Your task to perform on an android device: Open Google Chrome and click the shortcut for Amazon.com Image 0: 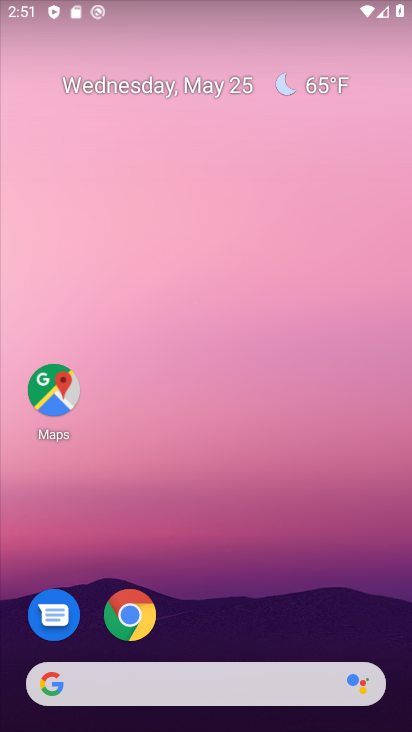
Step 0: click (142, 613)
Your task to perform on an android device: Open Google Chrome and click the shortcut for Amazon.com Image 1: 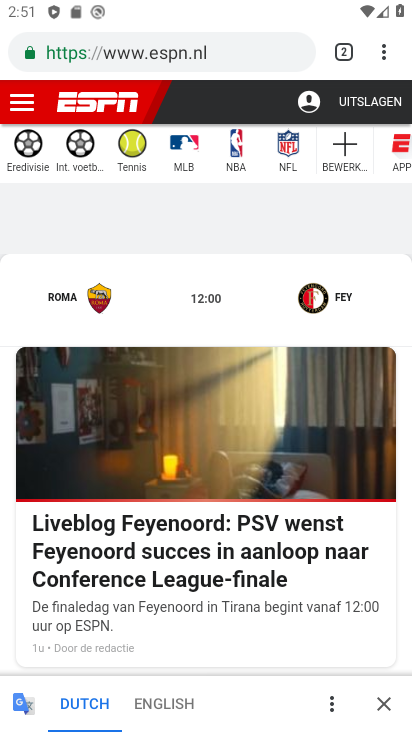
Step 1: click (339, 51)
Your task to perform on an android device: Open Google Chrome and click the shortcut for Amazon.com Image 2: 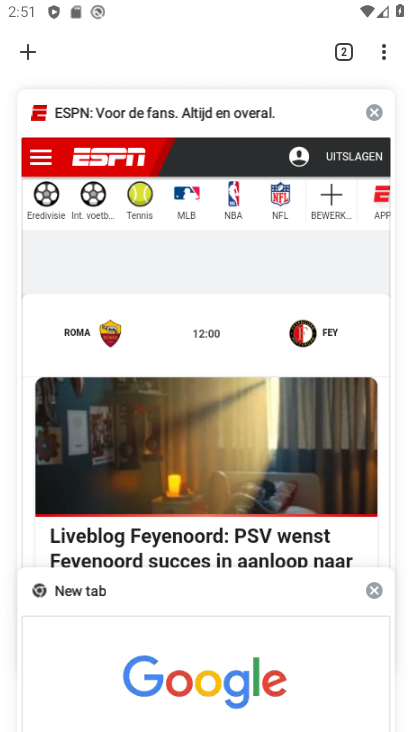
Step 2: click (368, 115)
Your task to perform on an android device: Open Google Chrome and click the shortcut for Amazon.com Image 3: 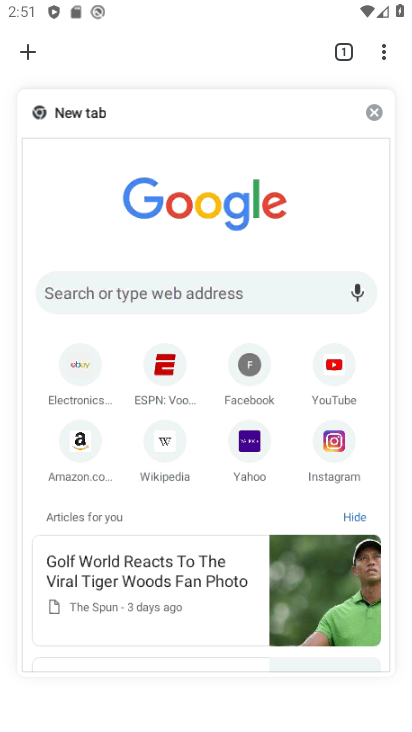
Step 3: click (89, 444)
Your task to perform on an android device: Open Google Chrome and click the shortcut for Amazon.com Image 4: 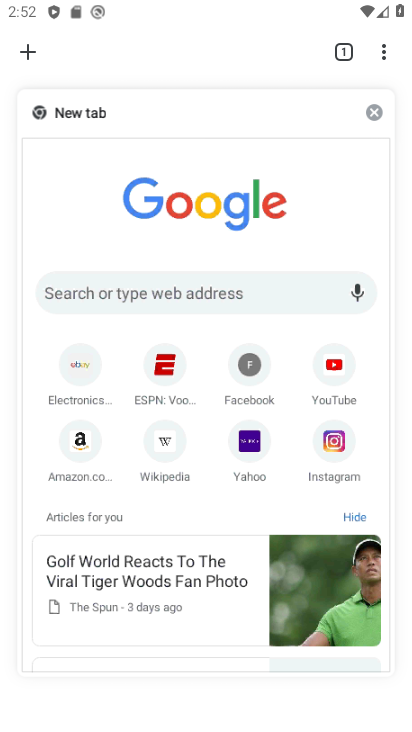
Step 4: click (80, 444)
Your task to perform on an android device: Open Google Chrome and click the shortcut for Amazon.com Image 5: 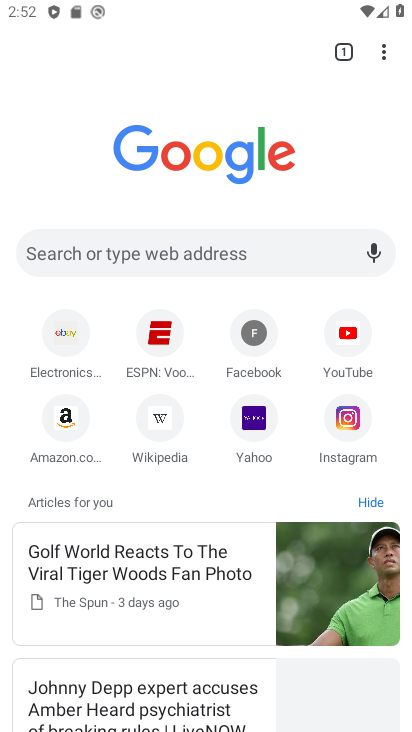
Step 5: click (76, 438)
Your task to perform on an android device: Open Google Chrome and click the shortcut for Amazon.com Image 6: 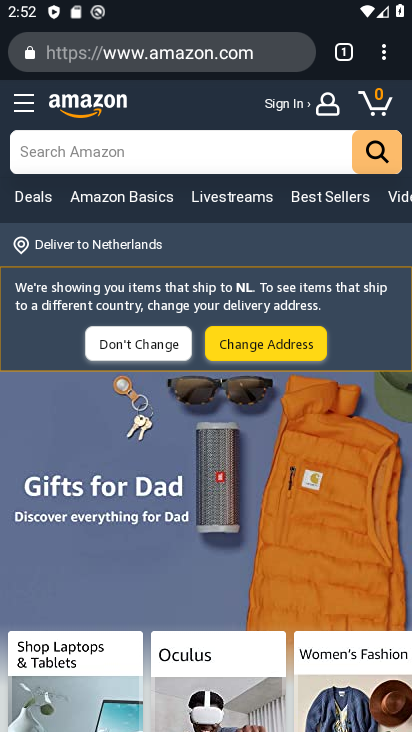
Step 6: task complete